Your task to perform on an android device: check out phone information Image 0: 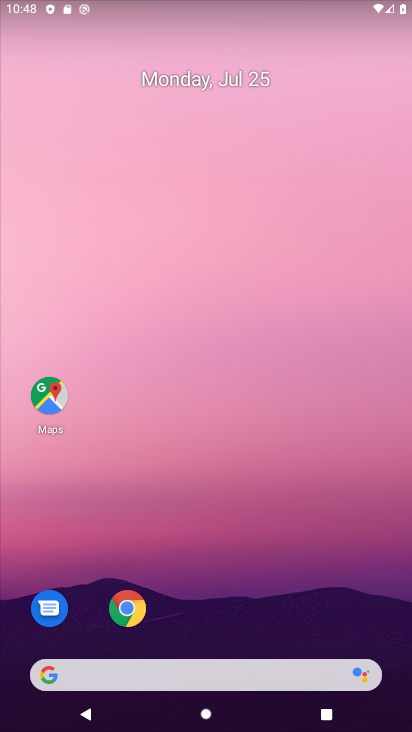
Step 0: drag from (271, 327) to (221, 21)
Your task to perform on an android device: check out phone information Image 1: 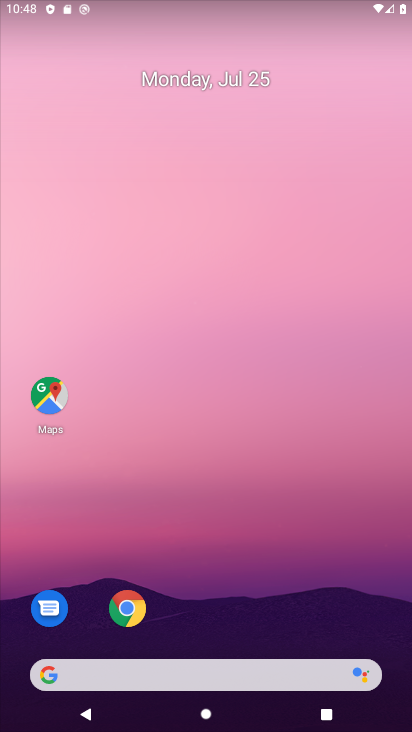
Step 1: drag from (231, 619) to (178, 60)
Your task to perform on an android device: check out phone information Image 2: 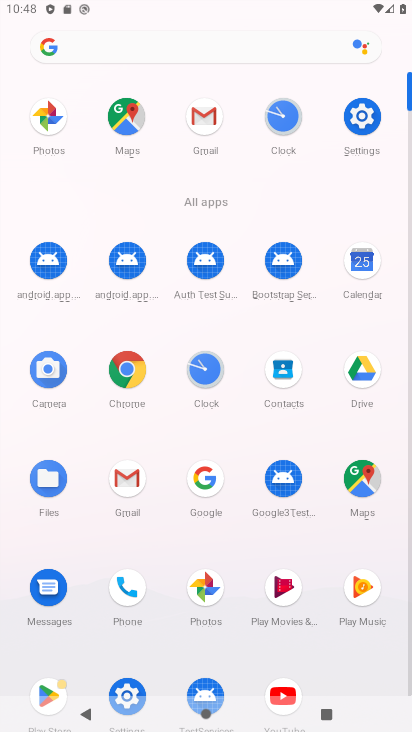
Step 2: click (370, 120)
Your task to perform on an android device: check out phone information Image 3: 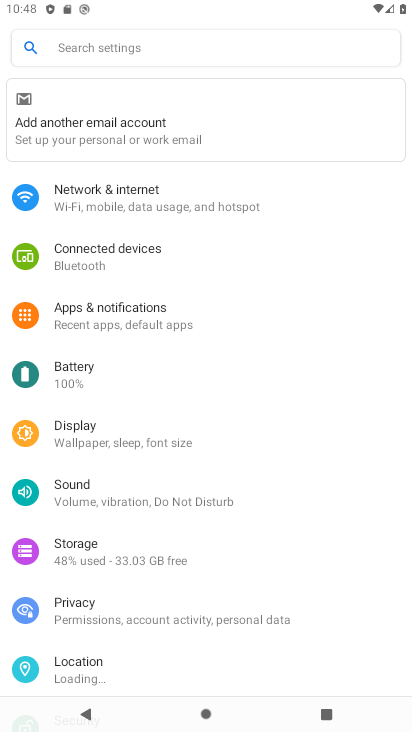
Step 3: drag from (185, 478) to (94, 24)
Your task to perform on an android device: check out phone information Image 4: 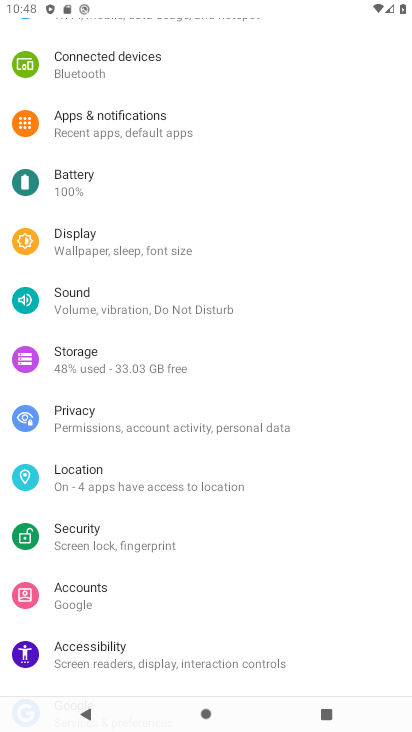
Step 4: drag from (207, 548) to (72, 205)
Your task to perform on an android device: check out phone information Image 5: 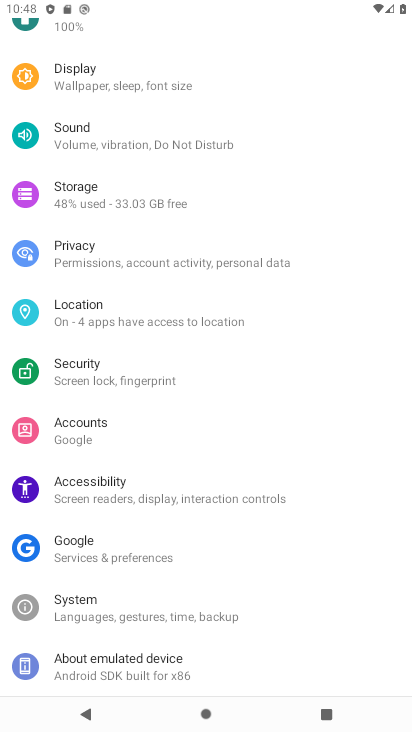
Step 5: click (152, 668)
Your task to perform on an android device: check out phone information Image 6: 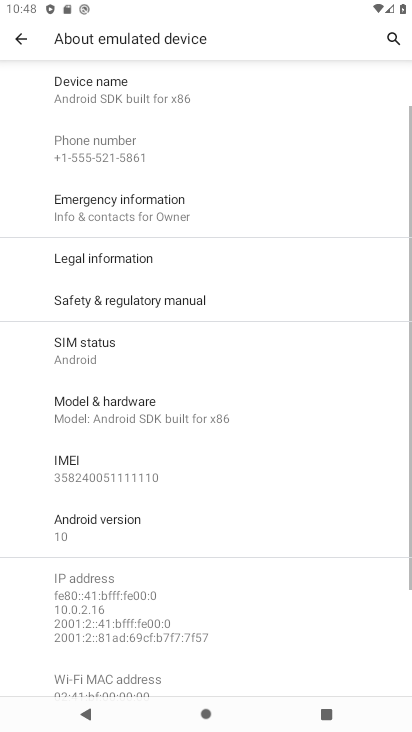
Step 6: task complete